Your task to perform on an android device: move a message to another label in the gmail app Image 0: 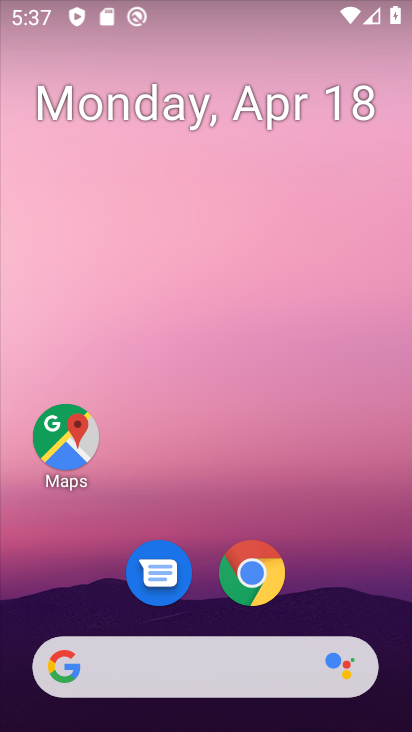
Step 0: drag from (208, 580) to (242, 0)
Your task to perform on an android device: move a message to another label in the gmail app Image 1: 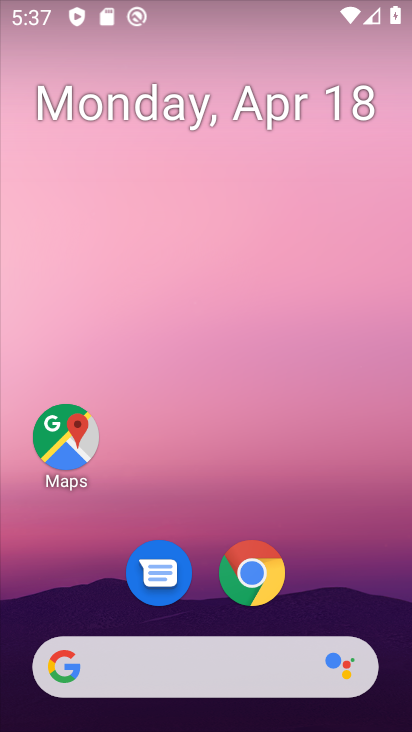
Step 1: drag from (287, 435) to (410, 100)
Your task to perform on an android device: move a message to another label in the gmail app Image 2: 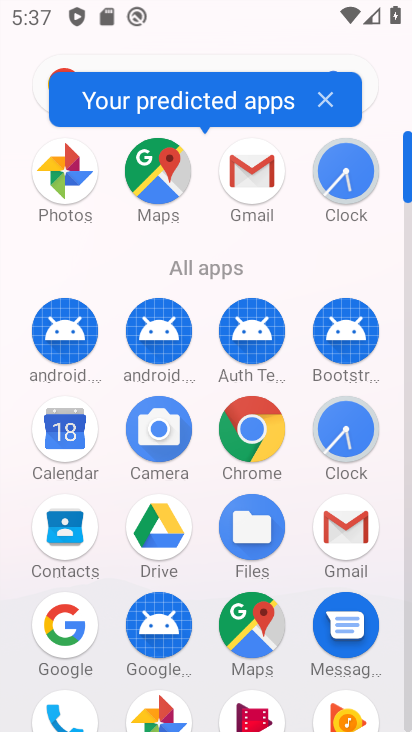
Step 2: click (336, 554)
Your task to perform on an android device: move a message to another label in the gmail app Image 3: 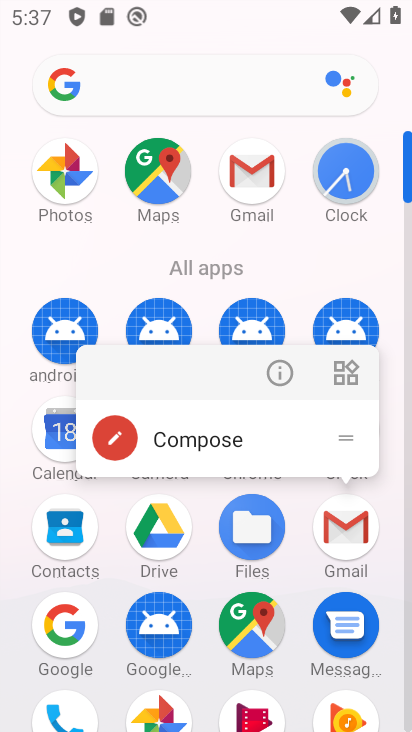
Step 3: click (338, 553)
Your task to perform on an android device: move a message to another label in the gmail app Image 4: 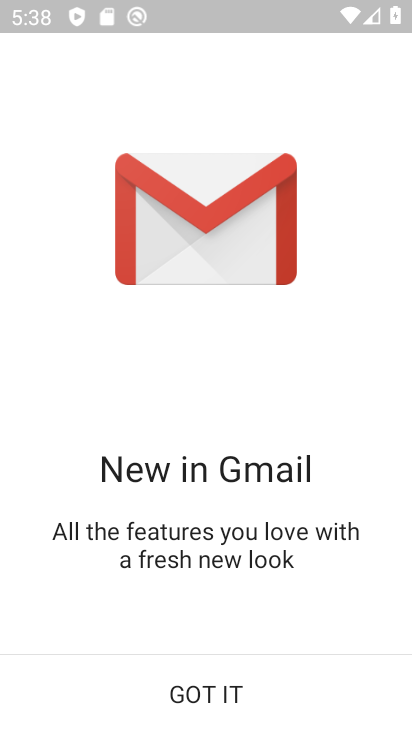
Step 4: click (231, 701)
Your task to perform on an android device: move a message to another label in the gmail app Image 5: 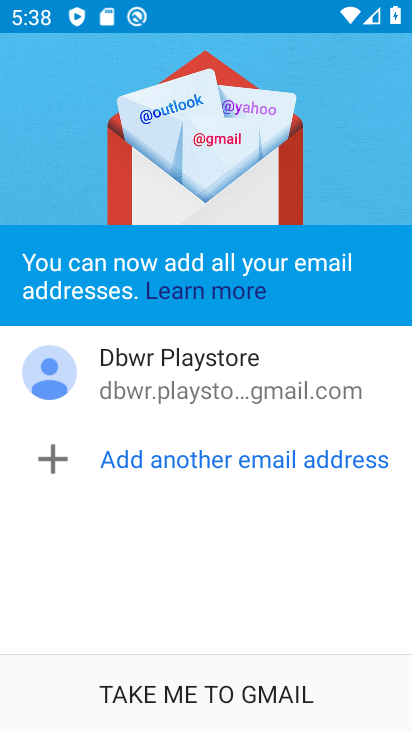
Step 5: click (231, 701)
Your task to perform on an android device: move a message to another label in the gmail app Image 6: 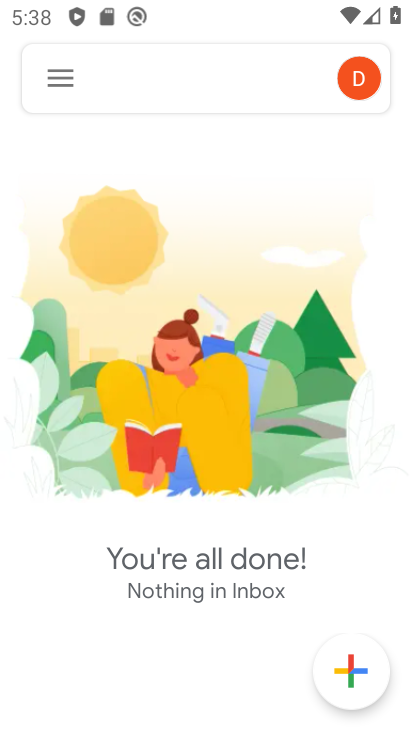
Step 6: task complete